Your task to perform on an android device: open sync settings in chrome Image 0: 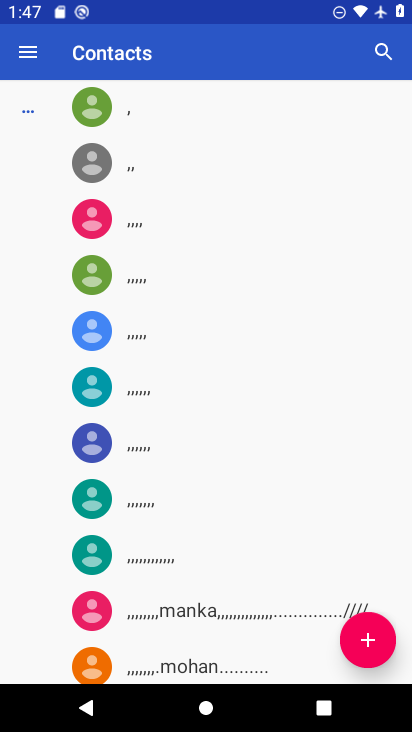
Step 0: press home button
Your task to perform on an android device: open sync settings in chrome Image 1: 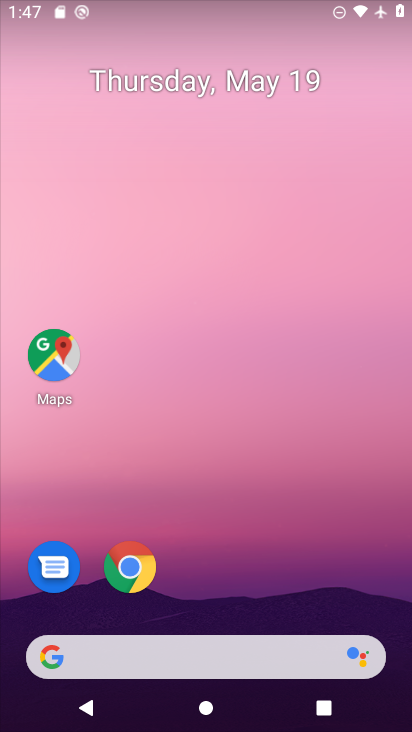
Step 1: click (146, 568)
Your task to perform on an android device: open sync settings in chrome Image 2: 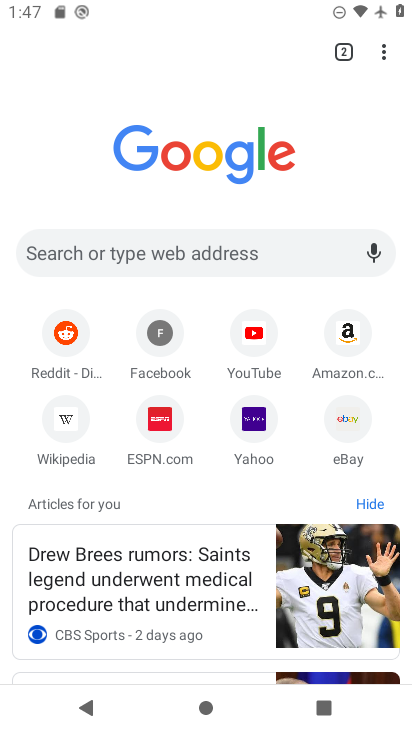
Step 2: click (384, 50)
Your task to perform on an android device: open sync settings in chrome Image 3: 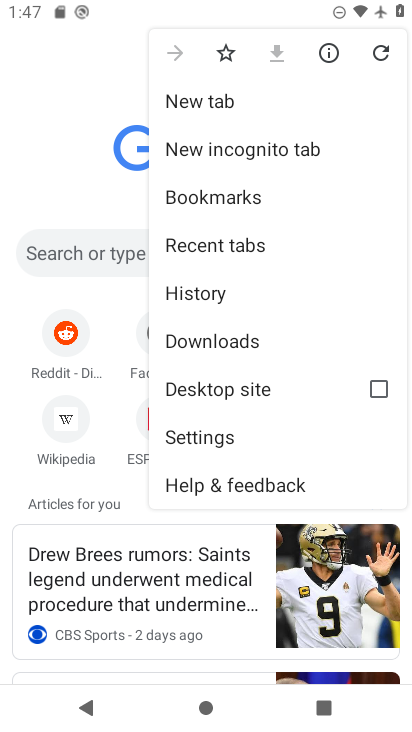
Step 3: click (243, 430)
Your task to perform on an android device: open sync settings in chrome Image 4: 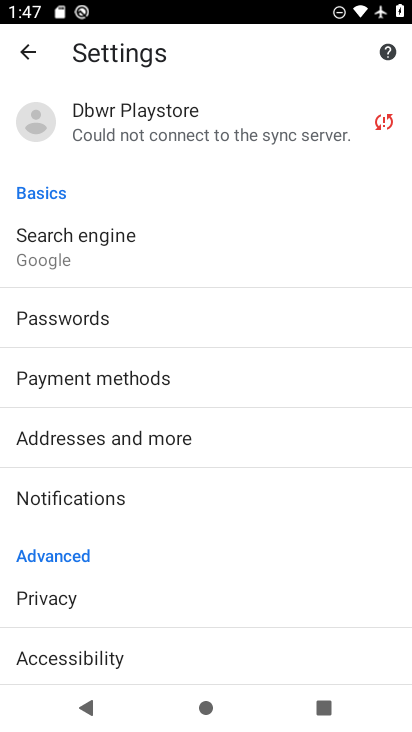
Step 4: click (208, 118)
Your task to perform on an android device: open sync settings in chrome Image 5: 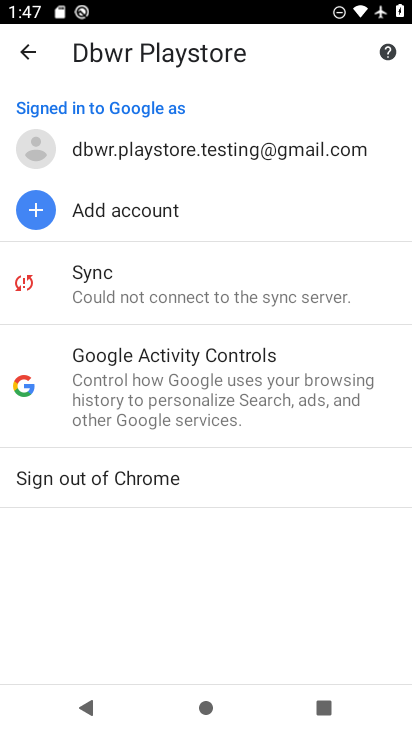
Step 5: click (172, 276)
Your task to perform on an android device: open sync settings in chrome Image 6: 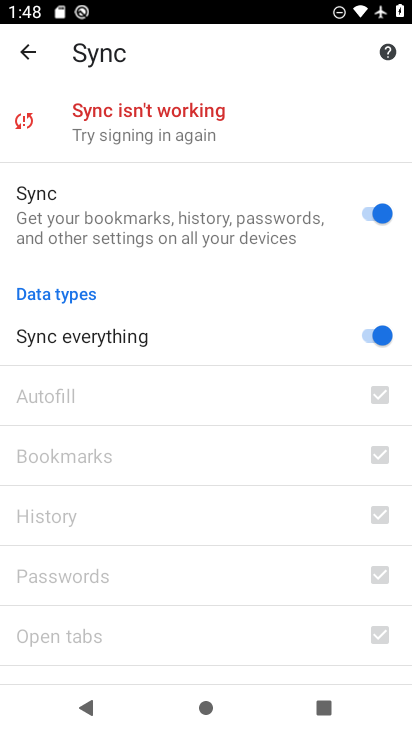
Step 6: task complete